Your task to perform on an android device: set the stopwatch Image 0: 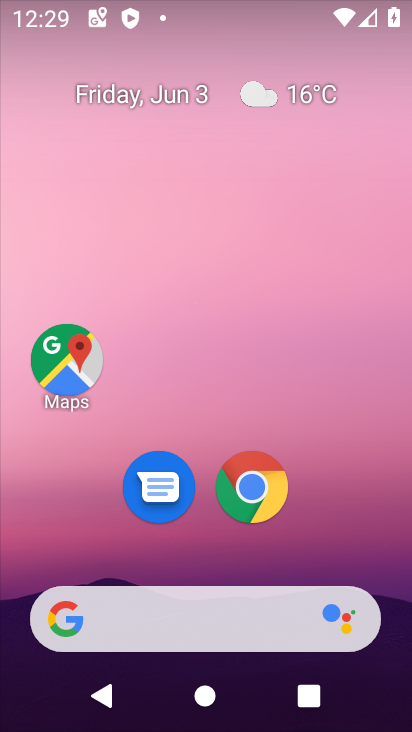
Step 0: drag from (209, 601) to (177, 37)
Your task to perform on an android device: set the stopwatch Image 1: 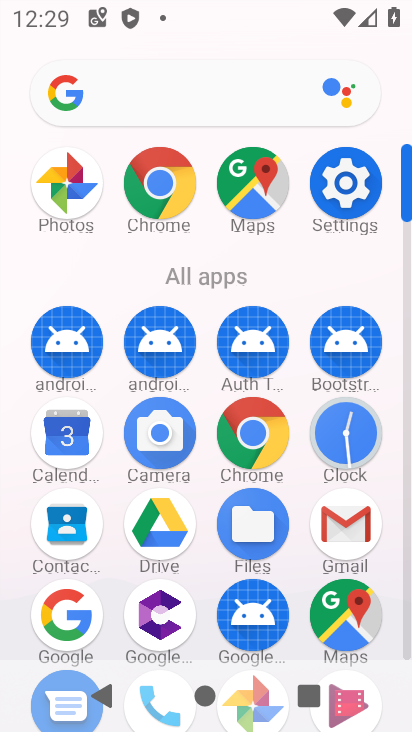
Step 1: click (350, 426)
Your task to perform on an android device: set the stopwatch Image 2: 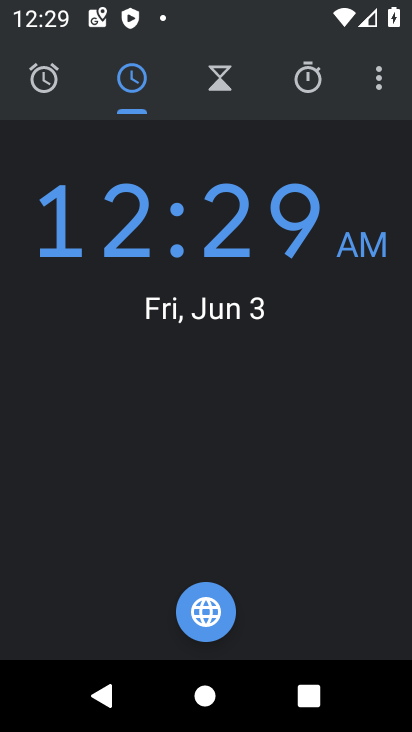
Step 2: click (309, 93)
Your task to perform on an android device: set the stopwatch Image 3: 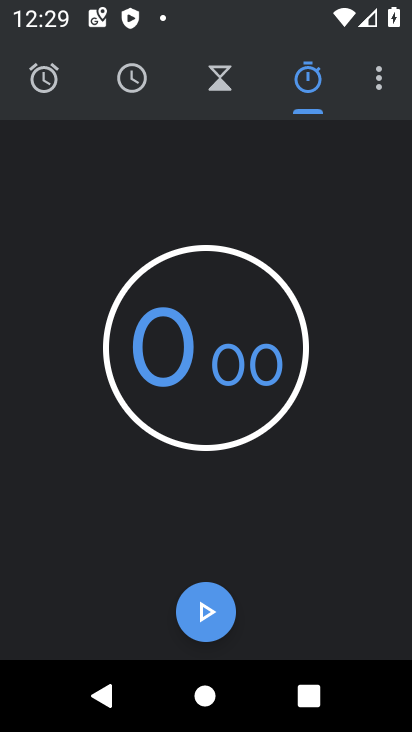
Step 3: click (182, 613)
Your task to perform on an android device: set the stopwatch Image 4: 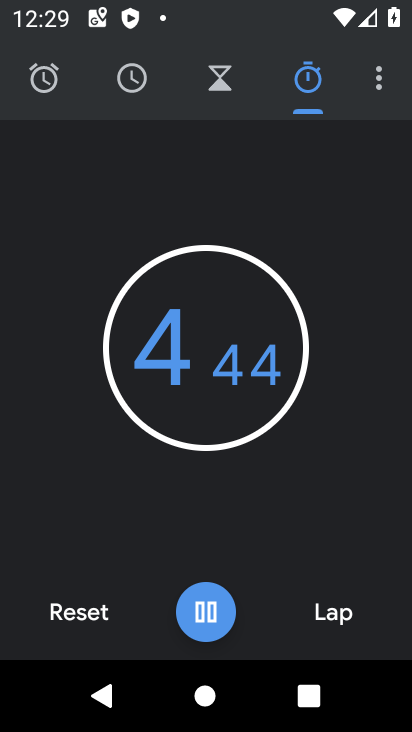
Step 4: task complete